Your task to perform on an android device: Open the stopwatch Image 0: 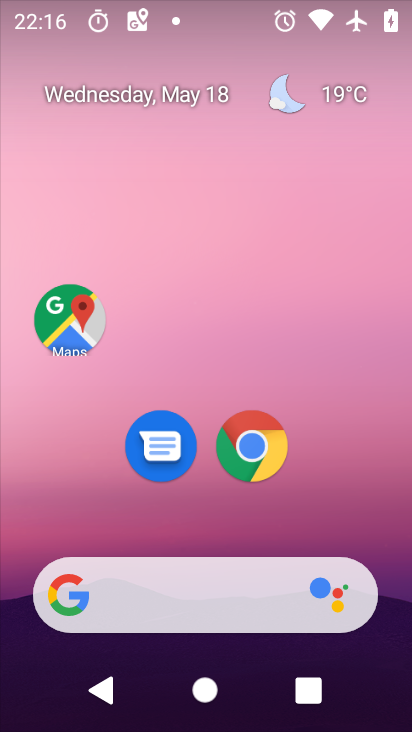
Step 0: drag from (185, 562) to (324, 65)
Your task to perform on an android device: Open the stopwatch Image 1: 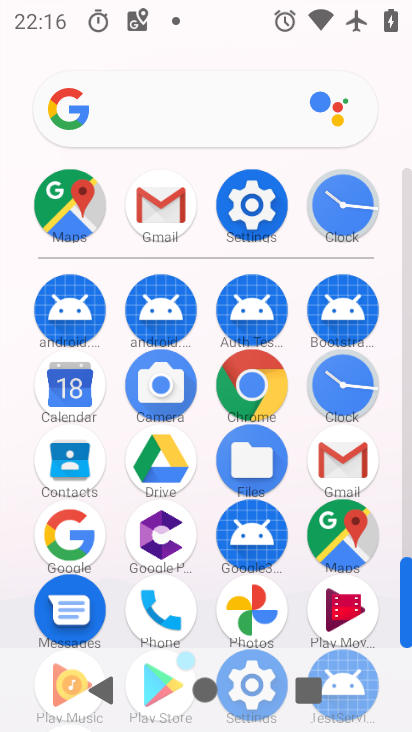
Step 1: click (340, 409)
Your task to perform on an android device: Open the stopwatch Image 2: 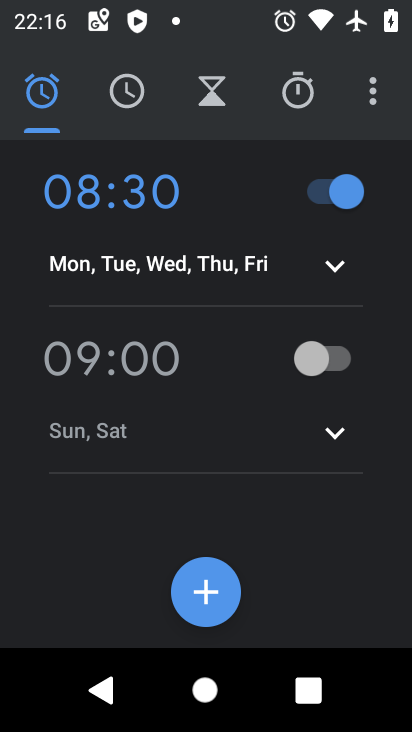
Step 2: click (307, 106)
Your task to perform on an android device: Open the stopwatch Image 3: 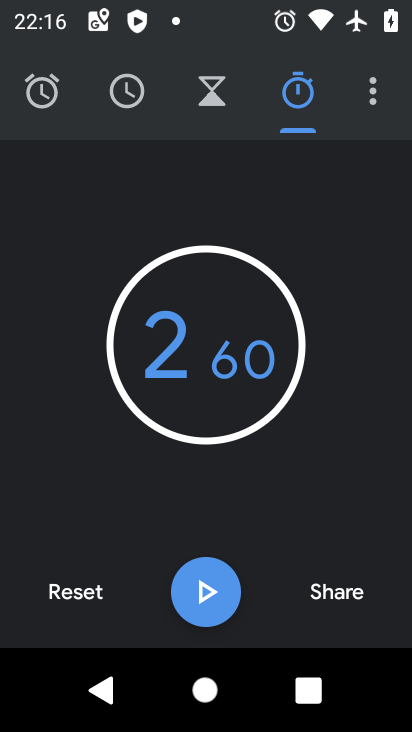
Step 3: click (71, 598)
Your task to perform on an android device: Open the stopwatch Image 4: 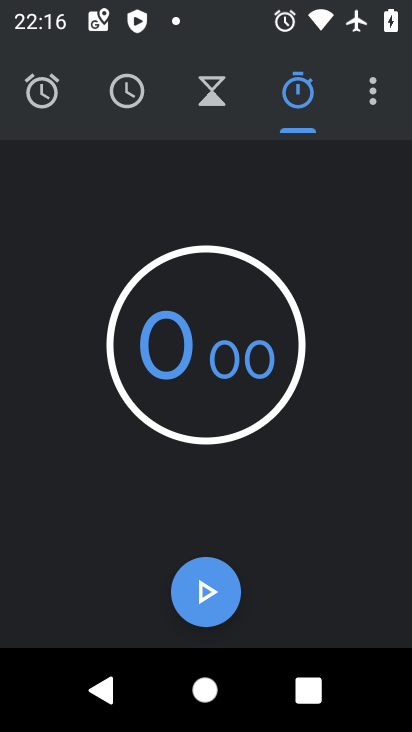
Step 4: click (201, 364)
Your task to perform on an android device: Open the stopwatch Image 5: 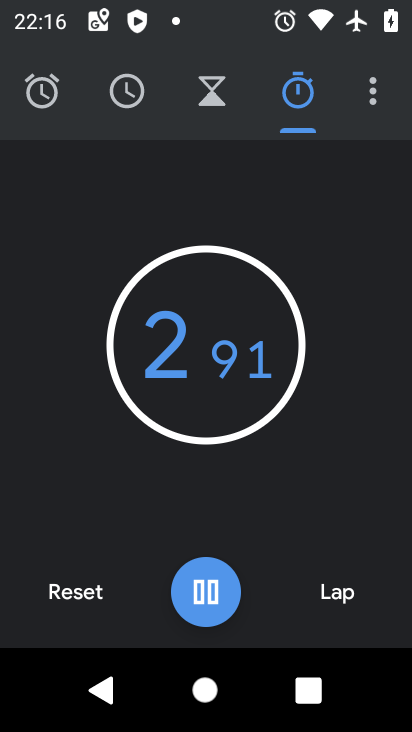
Step 5: click (201, 364)
Your task to perform on an android device: Open the stopwatch Image 6: 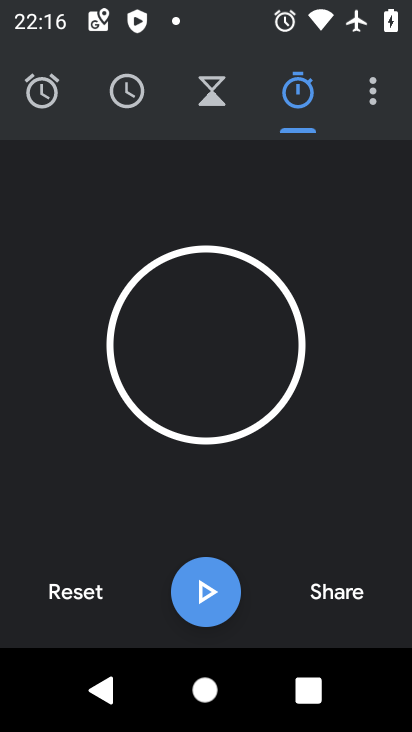
Step 6: task complete